Your task to perform on an android device: Open Yahoo.com Image 0: 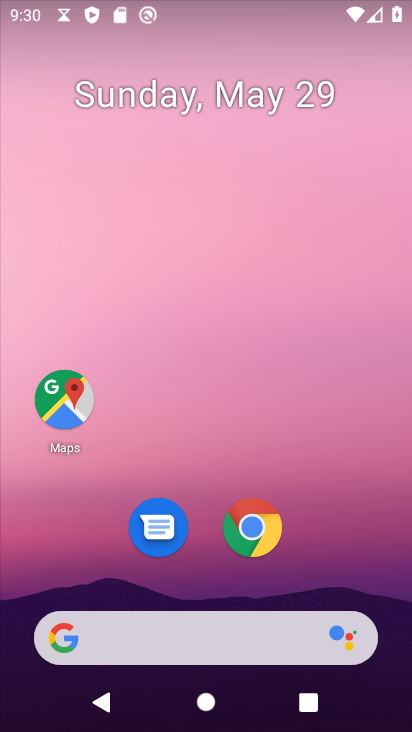
Step 0: press home button
Your task to perform on an android device: Open Yahoo.com Image 1: 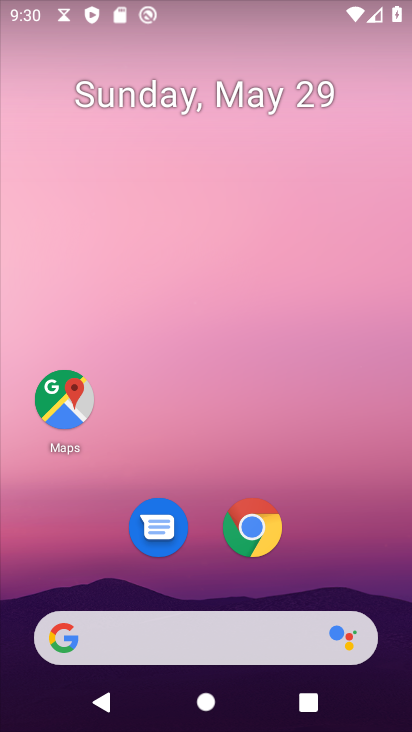
Step 1: click (252, 533)
Your task to perform on an android device: Open Yahoo.com Image 2: 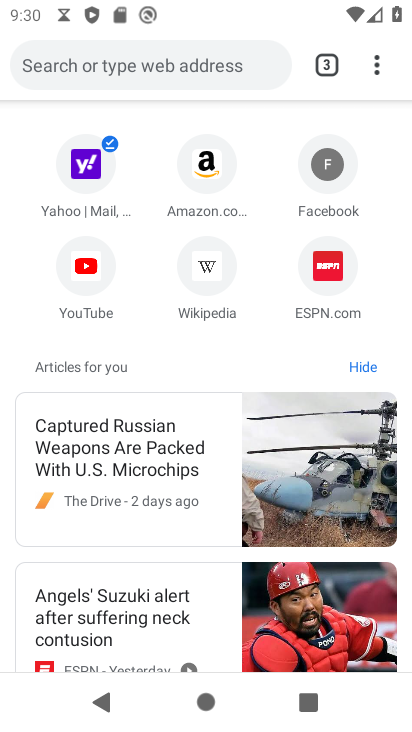
Step 2: click (75, 172)
Your task to perform on an android device: Open Yahoo.com Image 3: 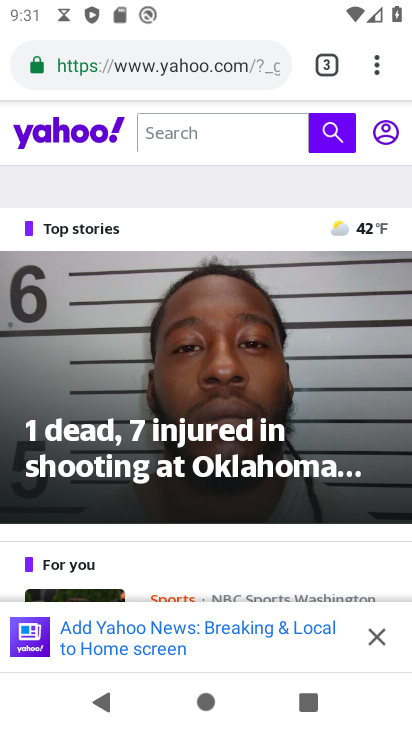
Step 3: task complete